Your task to perform on an android device: allow cookies in the chrome app Image 0: 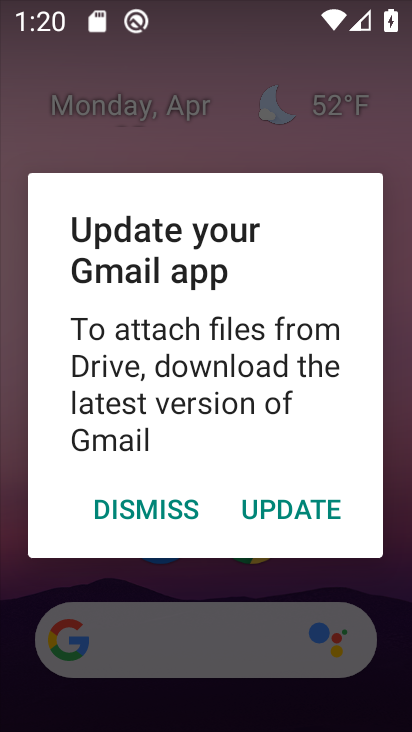
Step 0: press home button
Your task to perform on an android device: allow cookies in the chrome app Image 1: 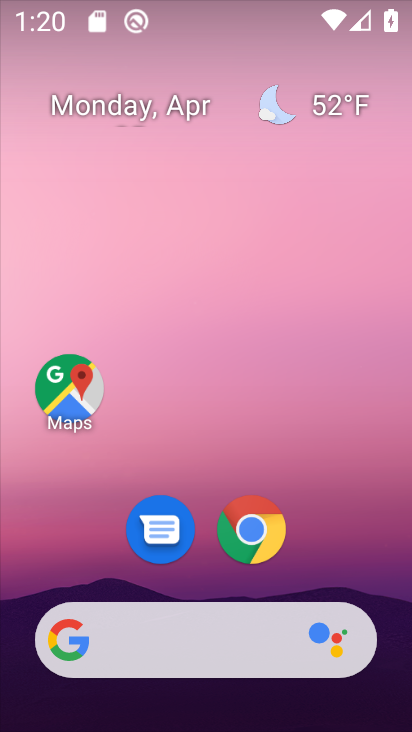
Step 1: click (239, 530)
Your task to perform on an android device: allow cookies in the chrome app Image 2: 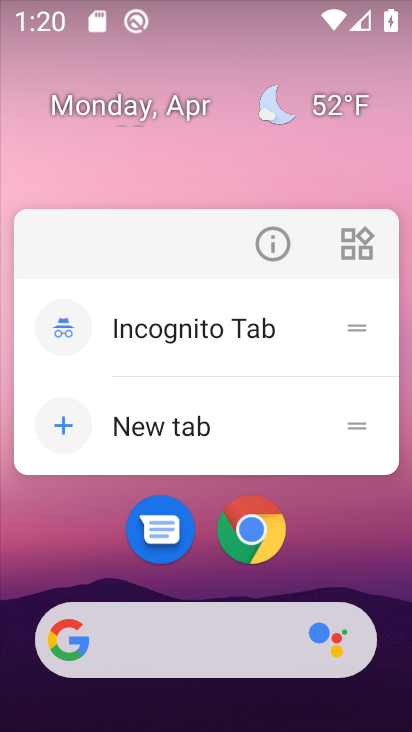
Step 2: click (252, 519)
Your task to perform on an android device: allow cookies in the chrome app Image 3: 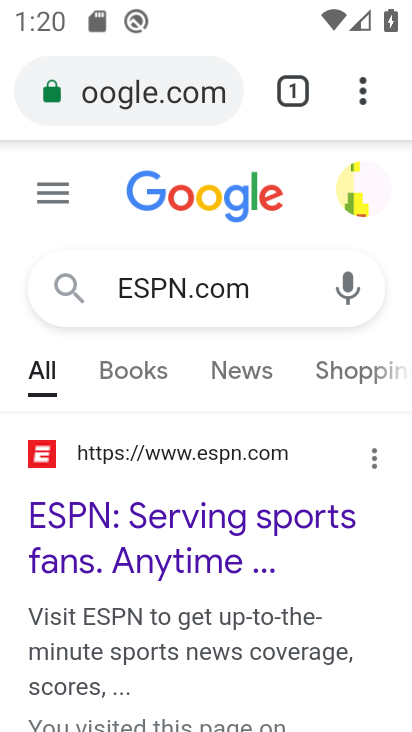
Step 3: click (364, 86)
Your task to perform on an android device: allow cookies in the chrome app Image 4: 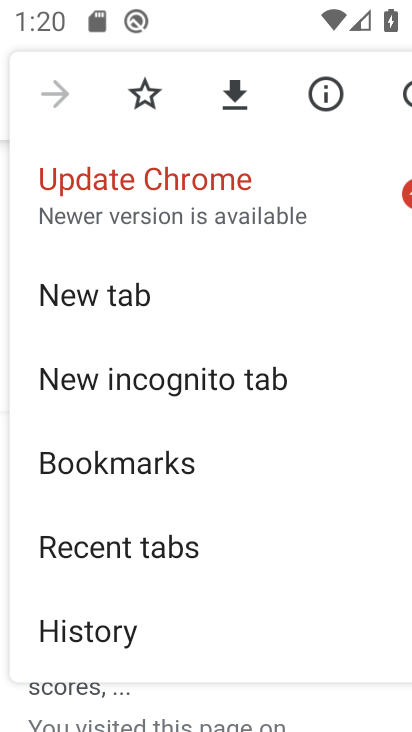
Step 4: drag from (325, 632) to (282, 244)
Your task to perform on an android device: allow cookies in the chrome app Image 5: 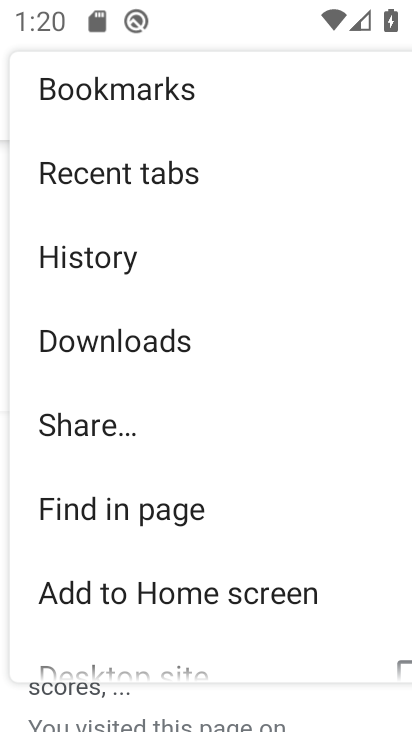
Step 5: drag from (352, 408) to (346, 194)
Your task to perform on an android device: allow cookies in the chrome app Image 6: 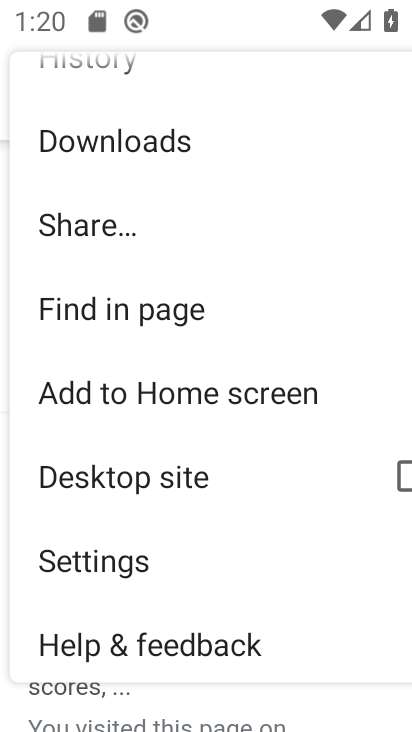
Step 6: drag from (319, 335) to (311, 228)
Your task to perform on an android device: allow cookies in the chrome app Image 7: 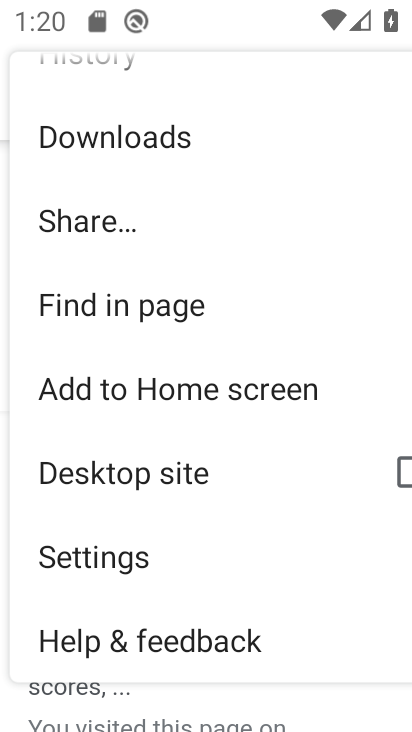
Step 7: drag from (309, 553) to (291, 250)
Your task to perform on an android device: allow cookies in the chrome app Image 8: 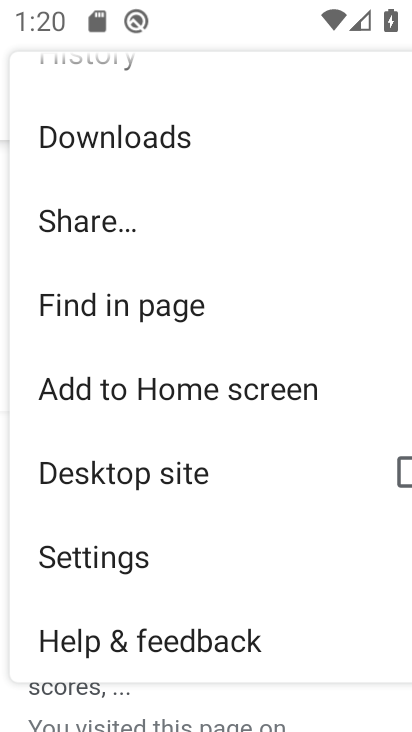
Step 8: drag from (309, 643) to (283, 212)
Your task to perform on an android device: allow cookies in the chrome app Image 9: 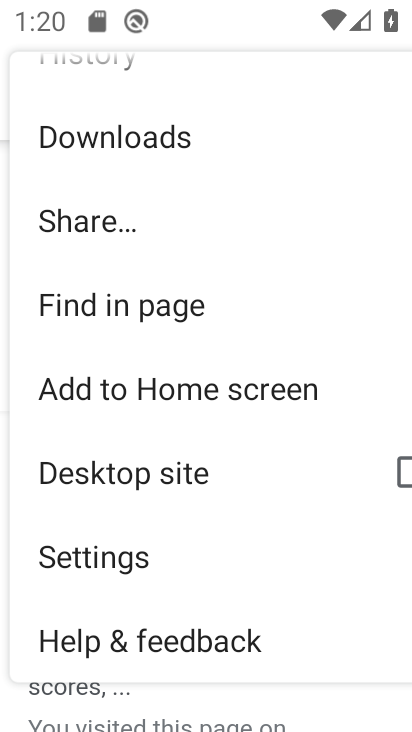
Step 9: drag from (311, 580) to (295, 331)
Your task to perform on an android device: allow cookies in the chrome app Image 10: 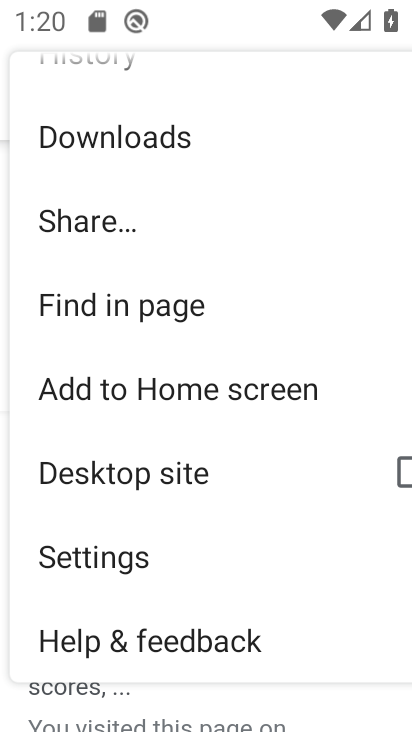
Step 10: drag from (264, 529) to (237, 318)
Your task to perform on an android device: allow cookies in the chrome app Image 11: 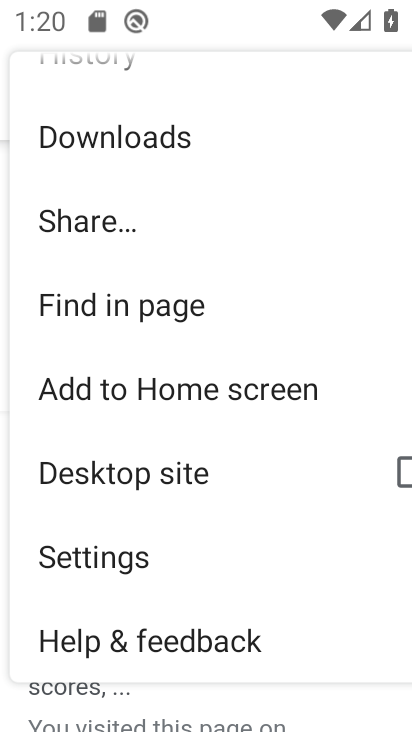
Step 11: drag from (278, 494) to (263, 245)
Your task to perform on an android device: allow cookies in the chrome app Image 12: 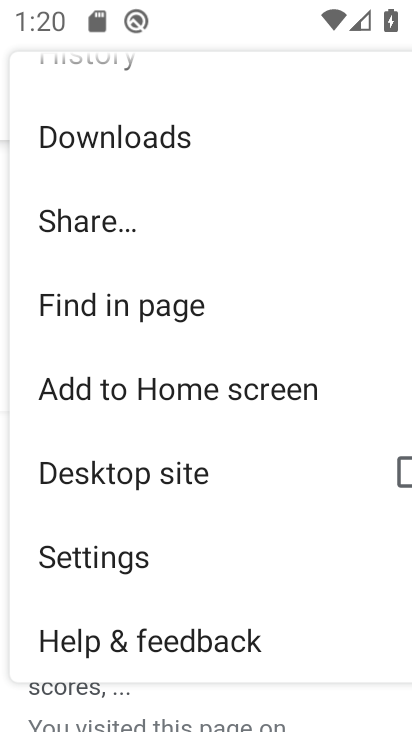
Step 12: drag from (289, 280) to (297, 623)
Your task to perform on an android device: allow cookies in the chrome app Image 13: 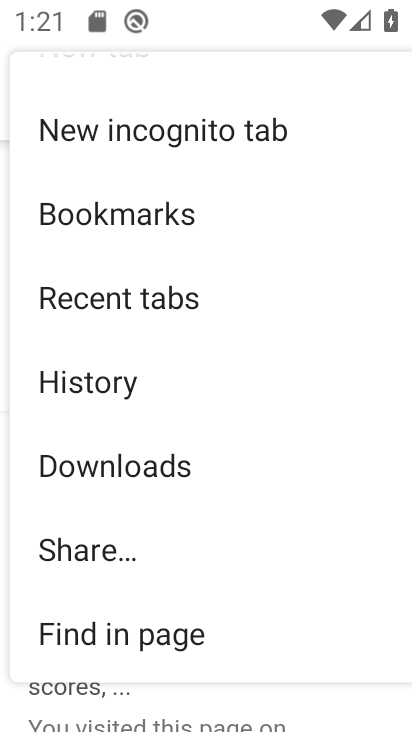
Step 13: click (68, 377)
Your task to perform on an android device: allow cookies in the chrome app Image 14: 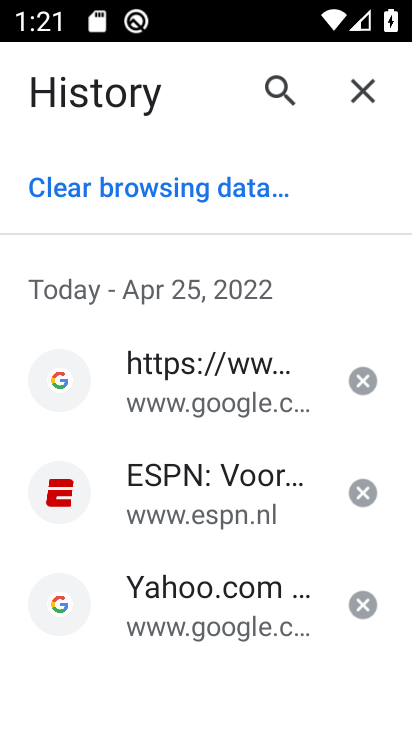
Step 14: click (149, 185)
Your task to perform on an android device: allow cookies in the chrome app Image 15: 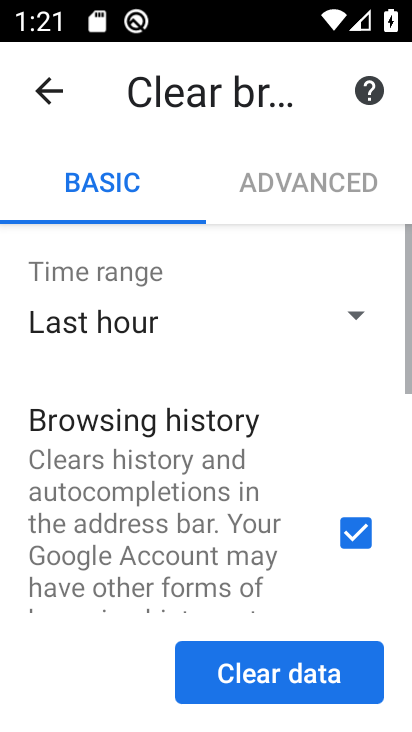
Step 15: click (250, 662)
Your task to perform on an android device: allow cookies in the chrome app Image 16: 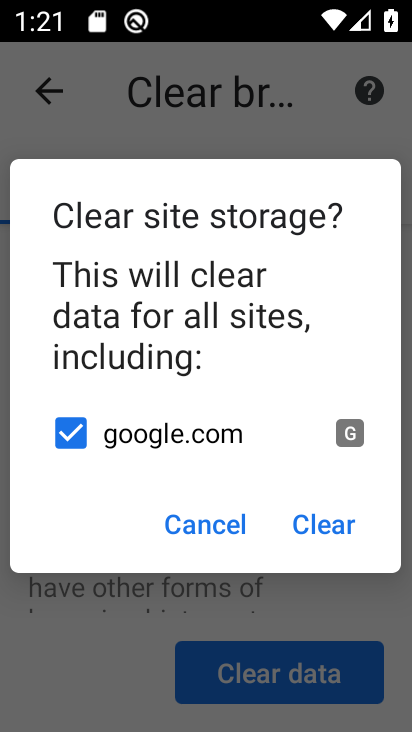
Step 16: click (299, 521)
Your task to perform on an android device: allow cookies in the chrome app Image 17: 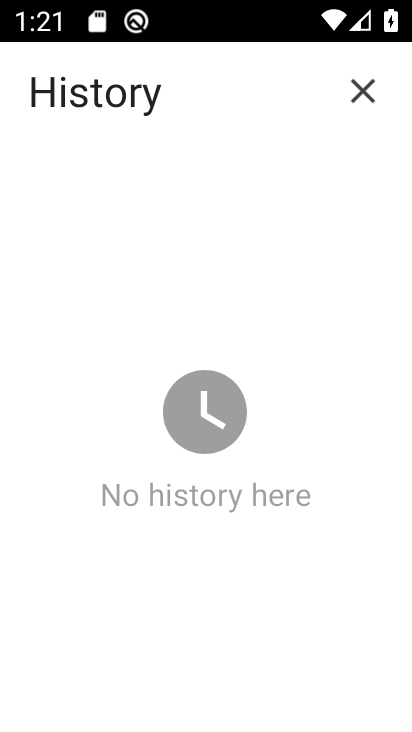
Step 17: task complete